Your task to perform on an android device: change the clock display to analog Image 0: 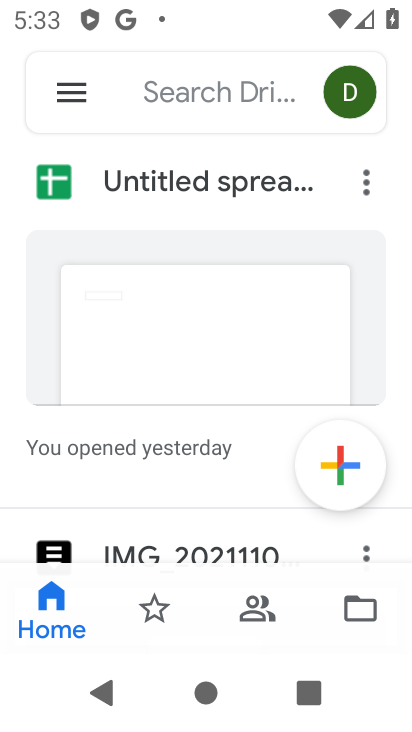
Step 0: press home button
Your task to perform on an android device: change the clock display to analog Image 1: 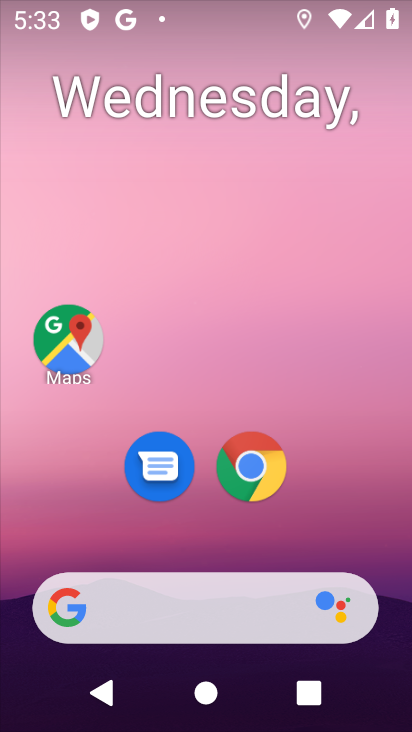
Step 1: drag from (347, 458) to (357, 74)
Your task to perform on an android device: change the clock display to analog Image 2: 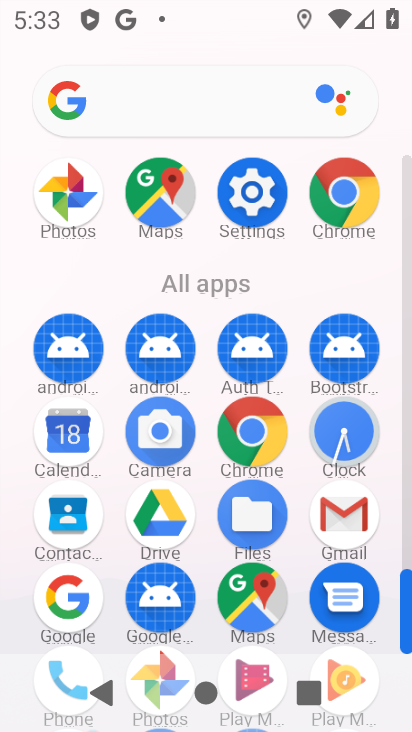
Step 2: click (272, 57)
Your task to perform on an android device: change the clock display to analog Image 3: 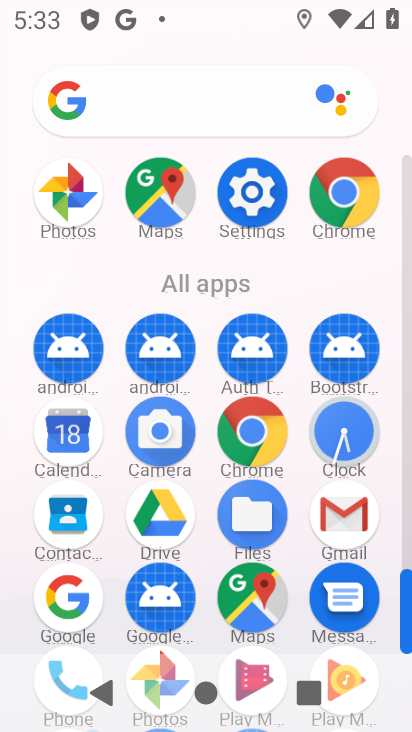
Step 3: drag from (338, 489) to (366, 146)
Your task to perform on an android device: change the clock display to analog Image 4: 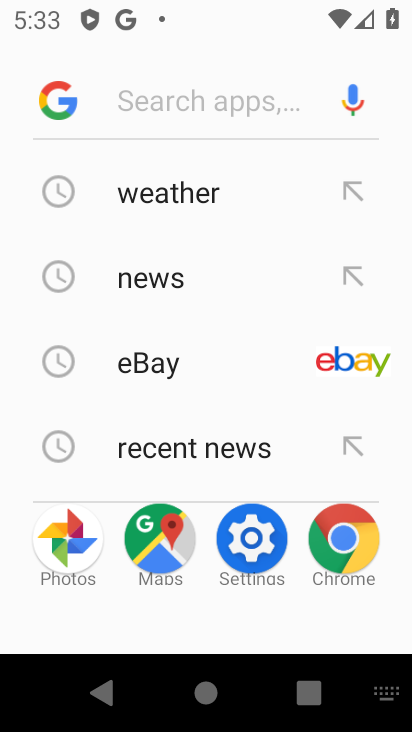
Step 4: press home button
Your task to perform on an android device: change the clock display to analog Image 5: 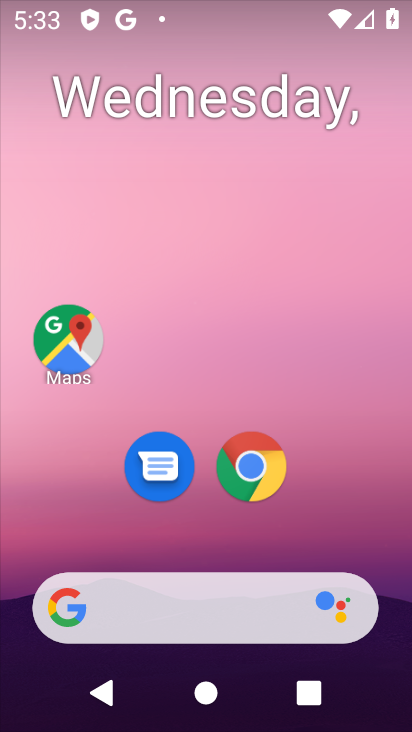
Step 5: drag from (340, 500) to (355, 22)
Your task to perform on an android device: change the clock display to analog Image 6: 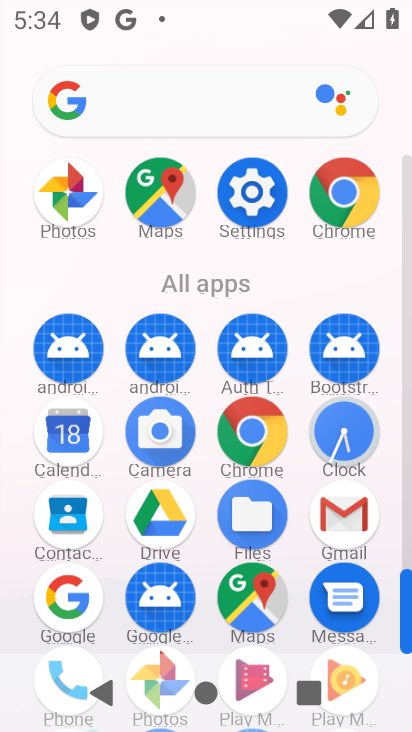
Step 6: click (339, 426)
Your task to perform on an android device: change the clock display to analog Image 7: 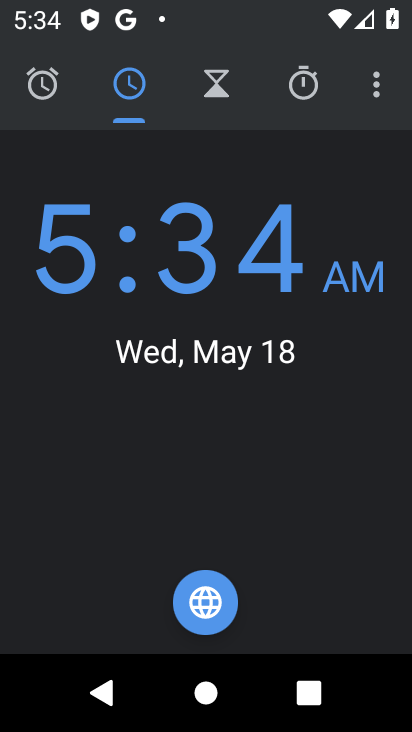
Step 7: click (375, 94)
Your task to perform on an android device: change the clock display to analog Image 8: 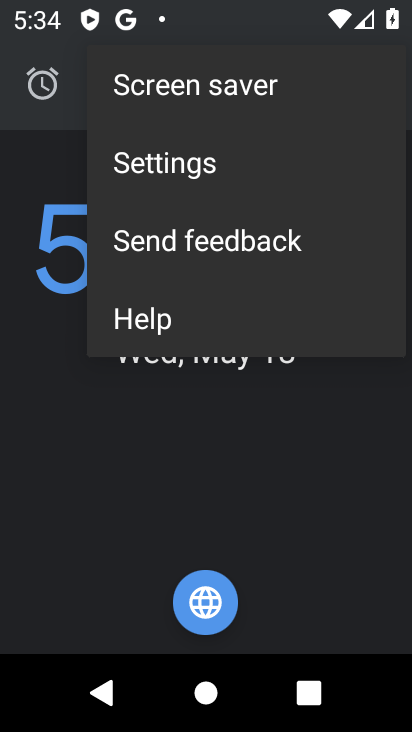
Step 8: click (208, 172)
Your task to perform on an android device: change the clock display to analog Image 9: 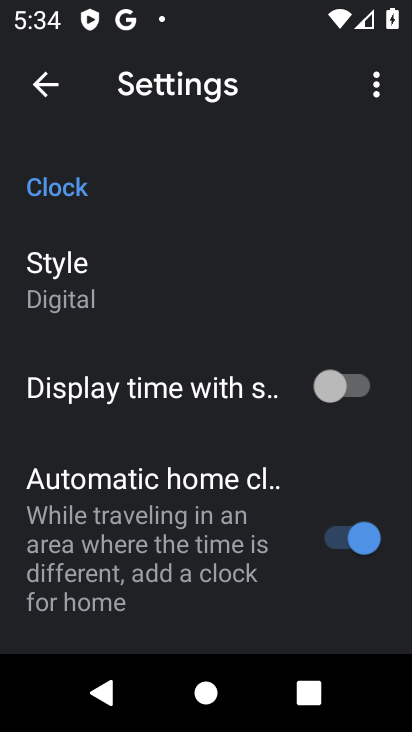
Step 9: click (83, 308)
Your task to perform on an android device: change the clock display to analog Image 10: 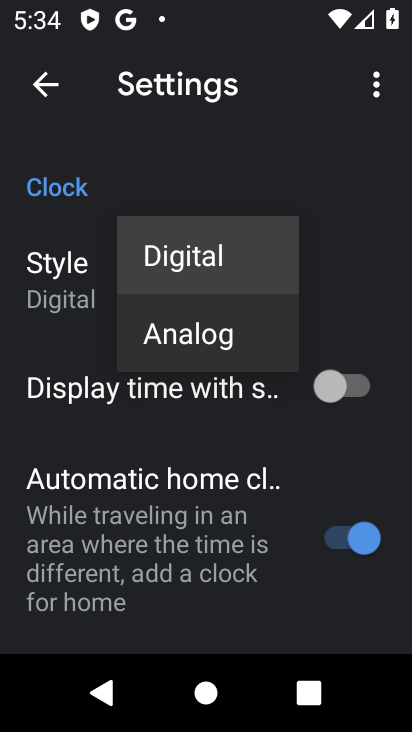
Step 10: click (176, 324)
Your task to perform on an android device: change the clock display to analog Image 11: 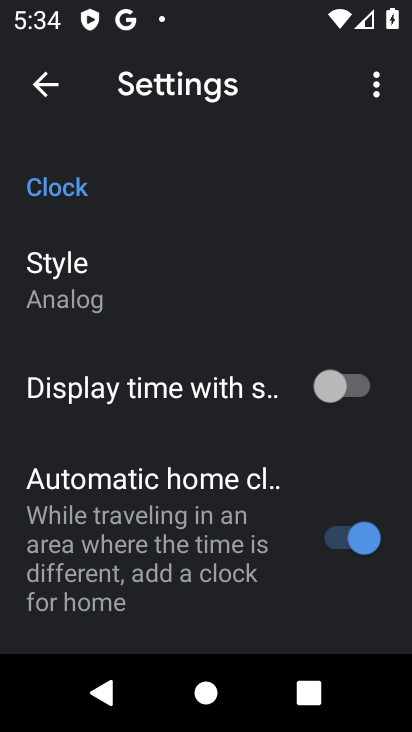
Step 11: task complete